Your task to perform on an android device: turn on the 12-hour format for clock Image 0: 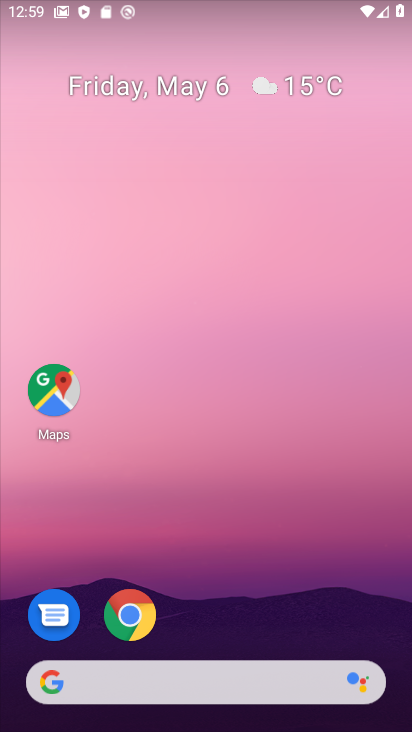
Step 0: drag from (317, 525) to (302, 49)
Your task to perform on an android device: turn on the 12-hour format for clock Image 1: 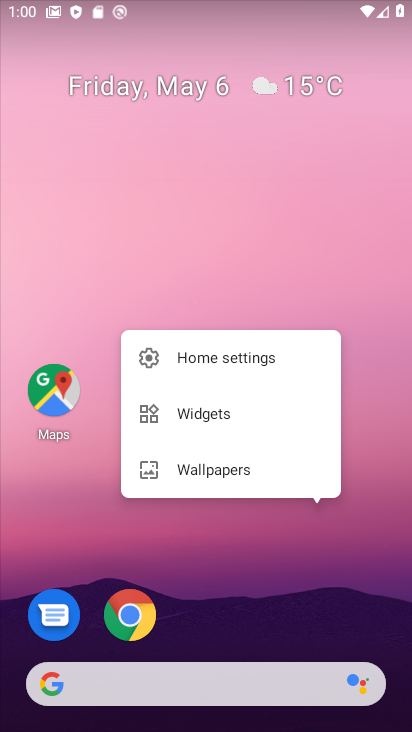
Step 1: click (380, 478)
Your task to perform on an android device: turn on the 12-hour format for clock Image 2: 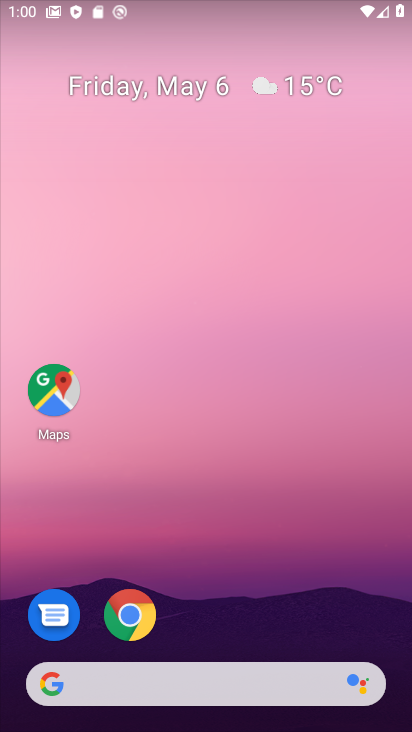
Step 2: drag from (243, 519) to (236, 100)
Your task to perform on an android device: turn on the 12-hour format for clock Image 3: 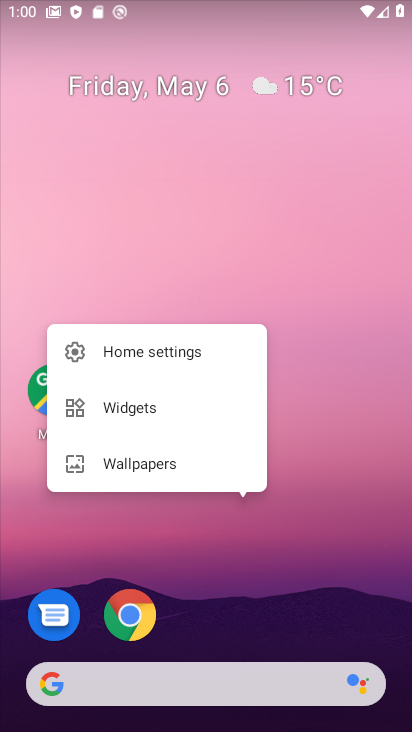
Step 3: click (329, 504)
Your task to perform on an android device: turn on the 12-hour format for clock Image 4: 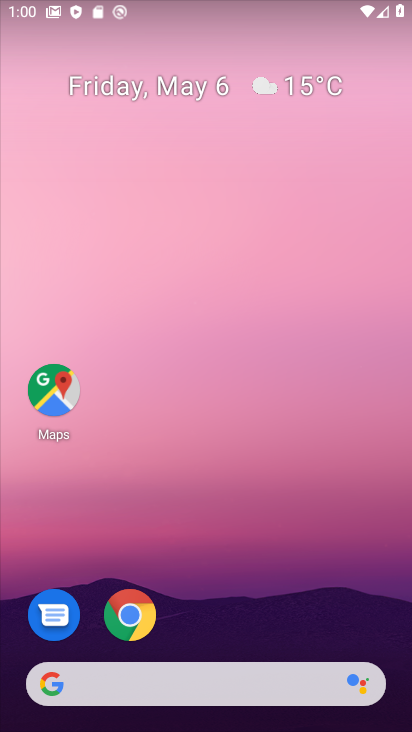
Step 4: drag from (309, 575) to (254, 66)
Your task to perform on an android device: turn on the 12-hour format for clock Image 5: 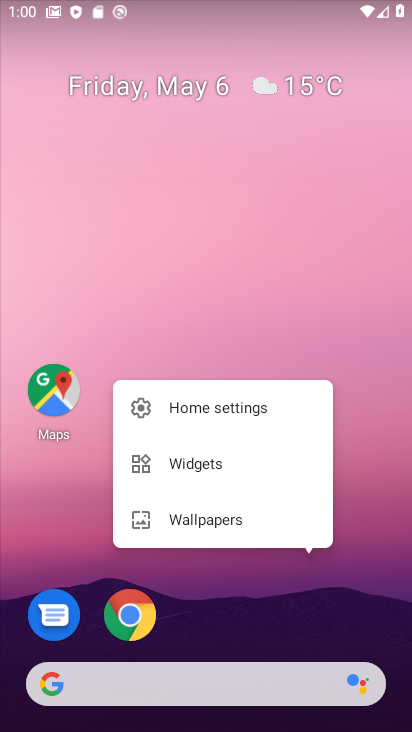
Step 5: click (347, 414)
Your task to perform on an android device: turn on the 12-hour format for clock Image 6: 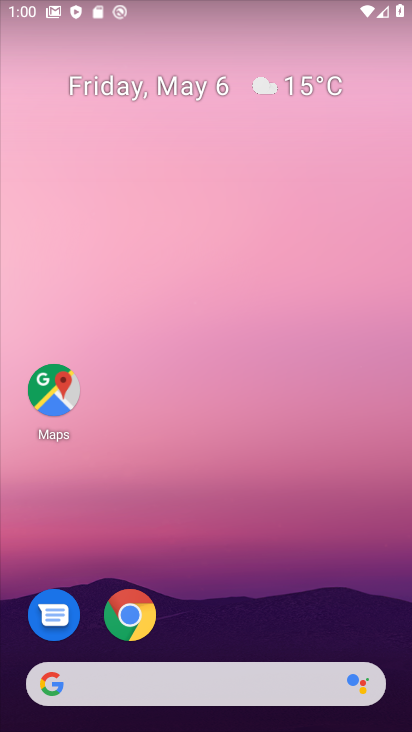
Step 6: drag from (219, 488) to (224, 53)
Your task to perform on an android device: turn on the 12-hour format for clock Image 7: 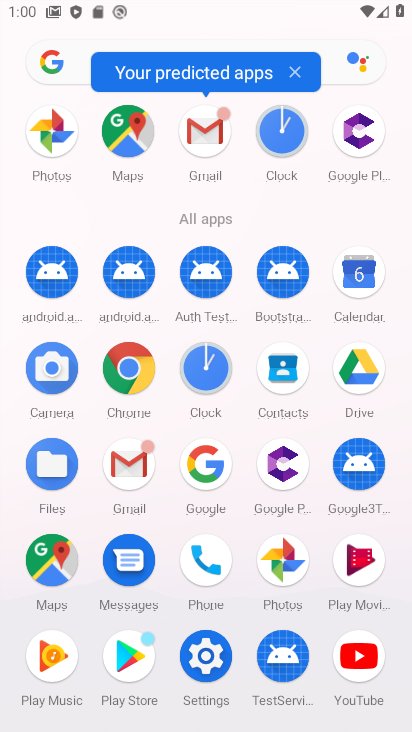
Step 7: click (285, 133)
Your task to perform on an android device: turn on the 12-hour format for clock Image 8: 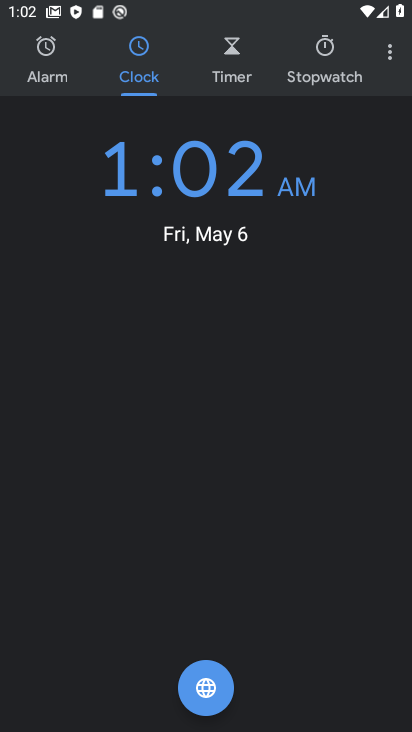
Step 8: click (393, 58)
Your task to perform on an android device: turn on the 12-hour format for clock Image 9: 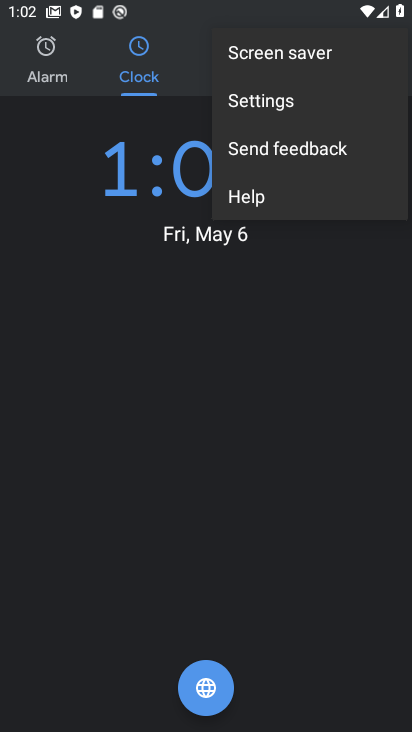
Step 9: click (341, 97)
Your task to perform on an android device: turn on the 12-hour format for clock Image 10: 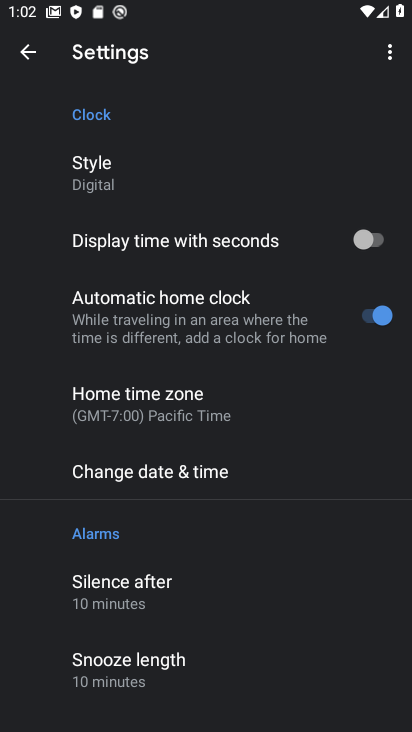
Step 10: click (237, 469)
Your task to perform on an android device: turn on the 12-hour format for clock Image 11: 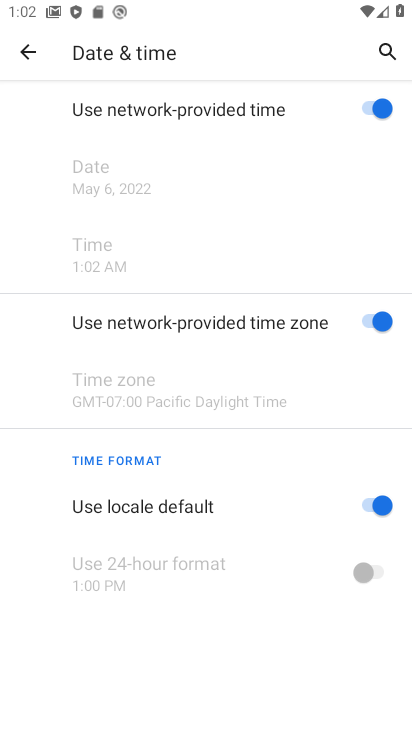
Step 11: task complete